Your task to perform on an android device: turn off translation in the chrome app Image 0: 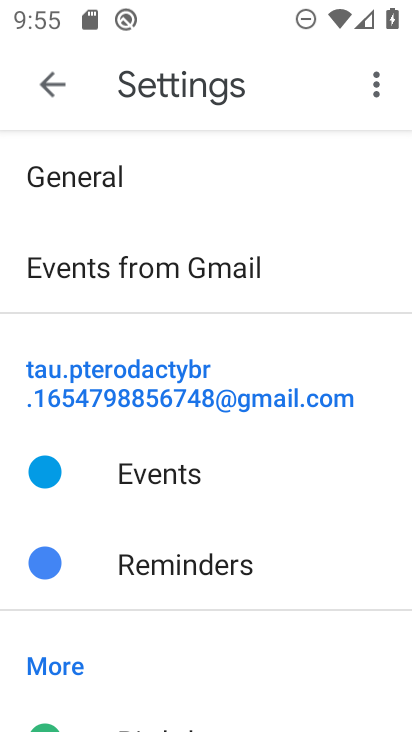
Step 0: press home button
Your task to perform on an android device: turn off translation in the chrome app Image 1: 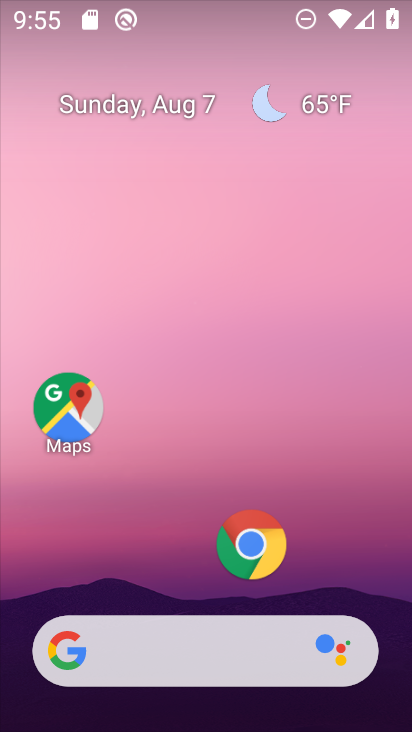
Step 1: drag from (225, 622) to (193, 68)
Your task to perform on an android device: turn off translation in the chrome app Image 2: 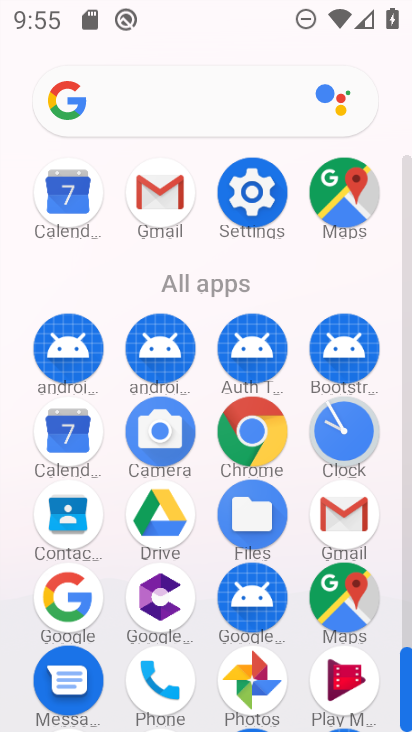
Step 2: click (244, 428)
Your task to perform on an android device: turn off translation in the chrome app Image 3: 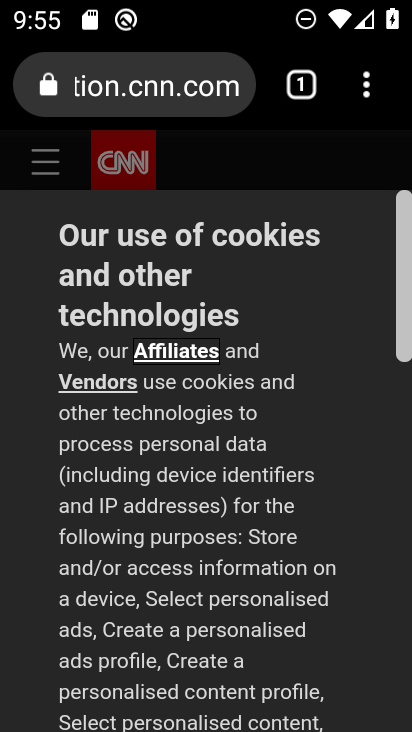
Step 3: drag from (363, 90) to (87, 598)
Your task to perform on an android device: turn off translation in the chrome app Image 4: 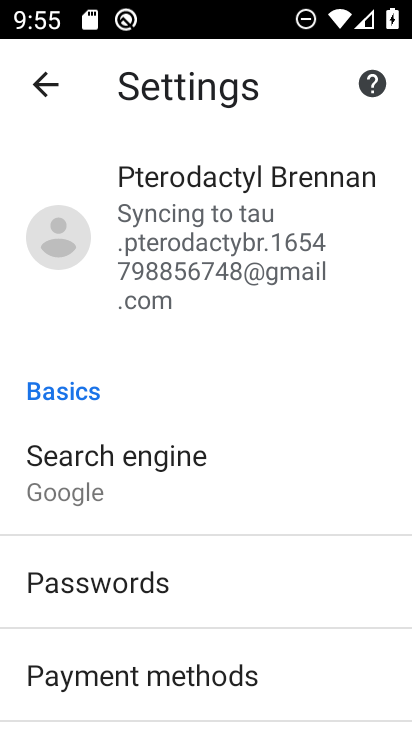
Step 4: drag from (165, 531) to (115, 9)
Your task to perform on an android device: turn off translation in the chrome app Image 5: 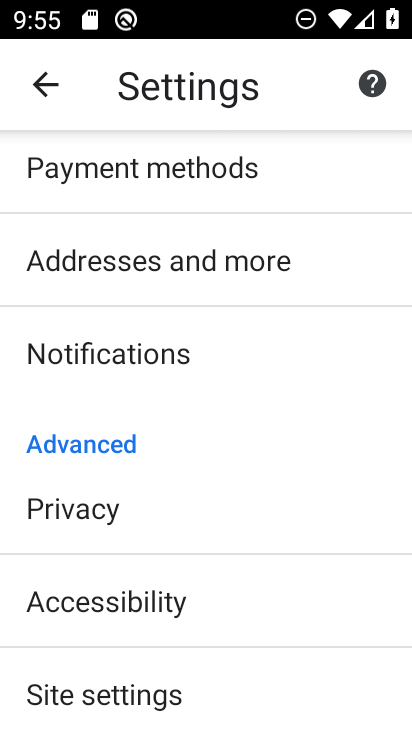
Step 5: drag from (176, 542) to (152, 192)
Your task to perform on an android device: turn off translation in the chrome app Image 6: 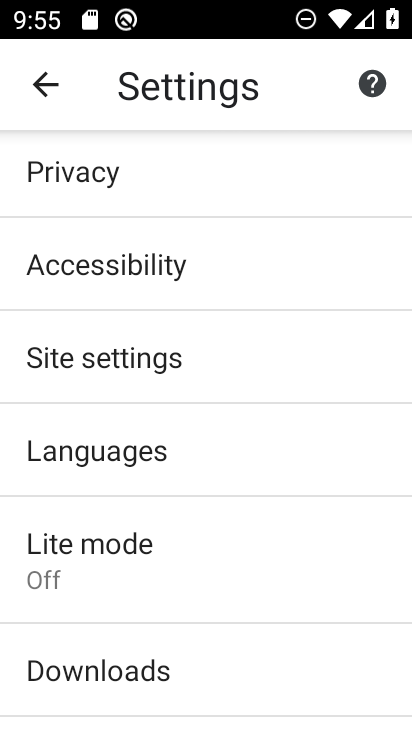
Step 6: click (138, 458)
Your task to perform on an android device: turn off translation in the chrome app Image 7: 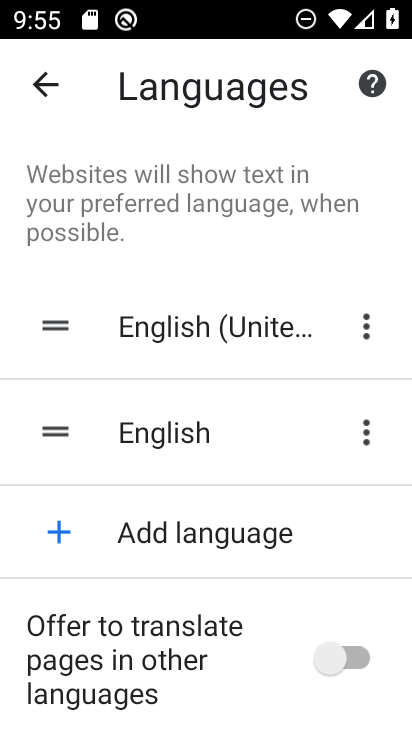
Step 7: task complete